Your task to perform on an android device: turn on data saver in the chrome app Image 0: 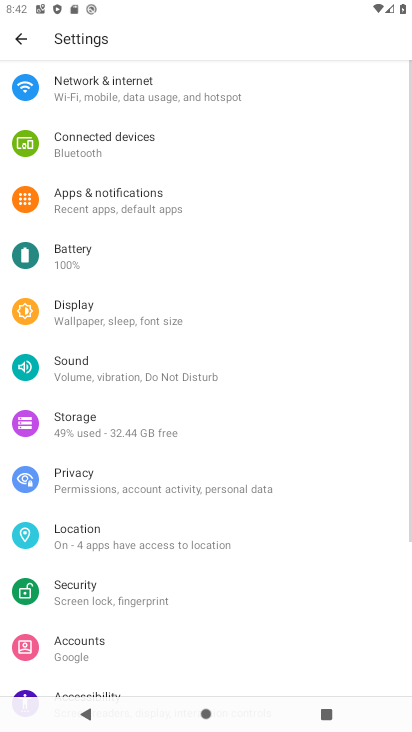
Step 0: press home button
Your task to perform on an android device: turn on data saver in the chrome app Image 1: 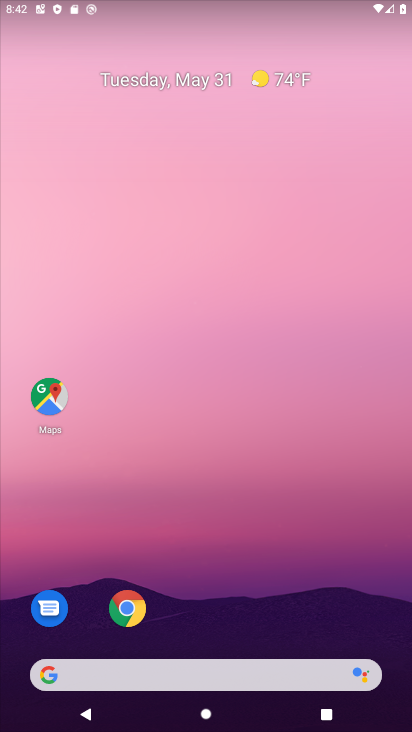
Step 1: click (147, 613)
Your task to perform on an android device: turn on data saver in the chrome app Image 2: 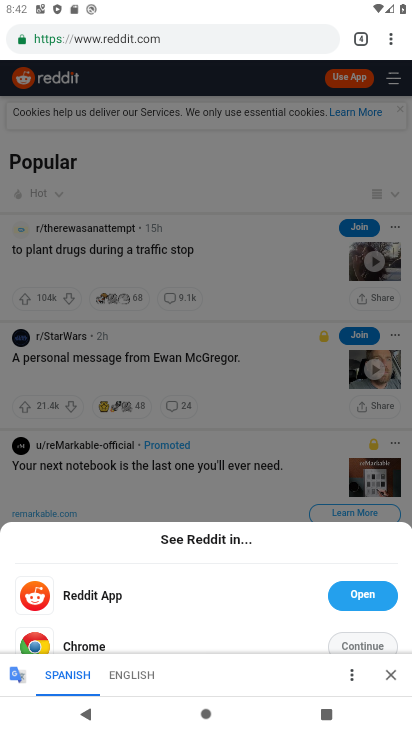
Step 2: click (387, 36)
Your task to perform on an android device: turn on data saver in the chrome app Image 3: 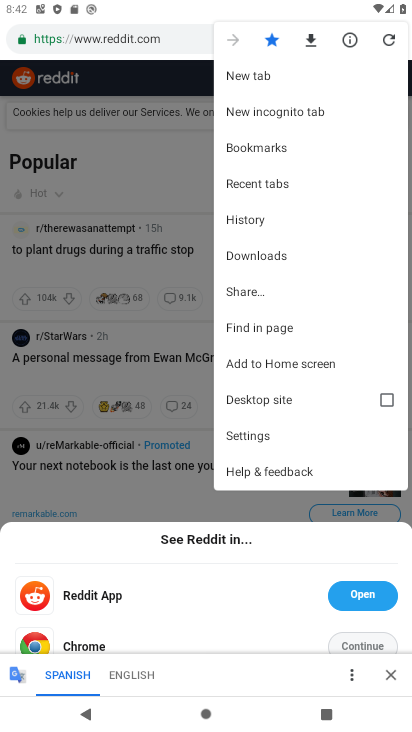
Step 3: click (249, 431)
Your task to perform on an android device: turn on data saver in the chrome app Image 4: 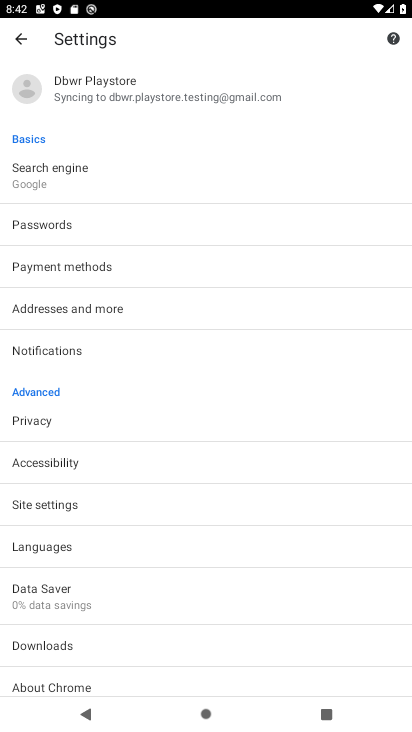
Step 4: click (51, 594)
Your task to perform on an android device: turn on data saver in the chrome app Image 5: 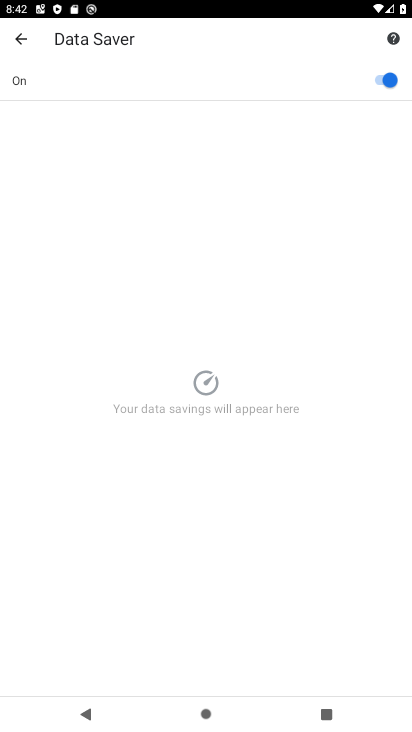
Step 5: task complete